Your task to perform on an android device: set an alarm Image 0: 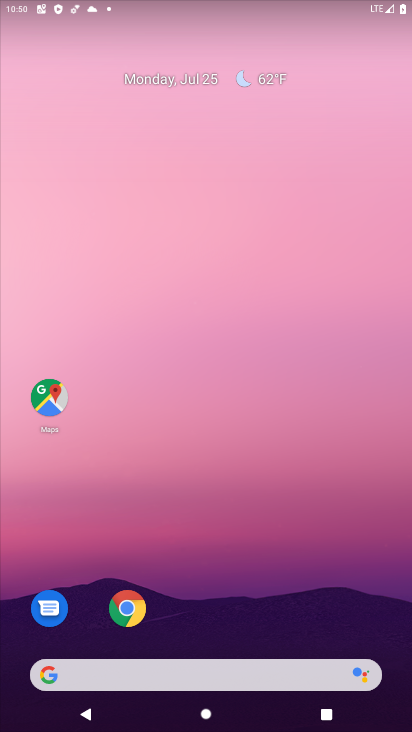
Step 0: drag from (252, 628) to (275, 255)
Your task to perform on an android device: set an alarm Image 1: 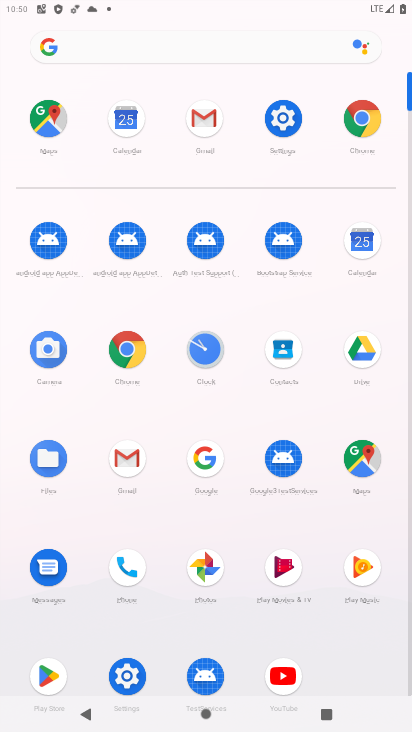
Step 1: click (206, 354)
Your task to perform on an android device: set an alarm Image 2: 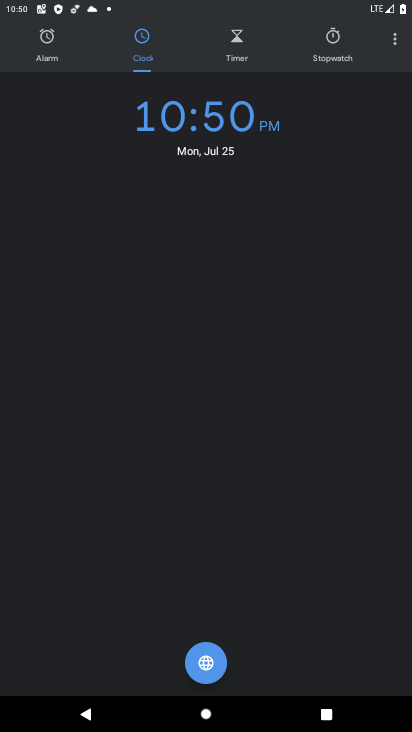
Step 2: click (42, 47)
Your task to perform on an android device: set an alarm Image 3: 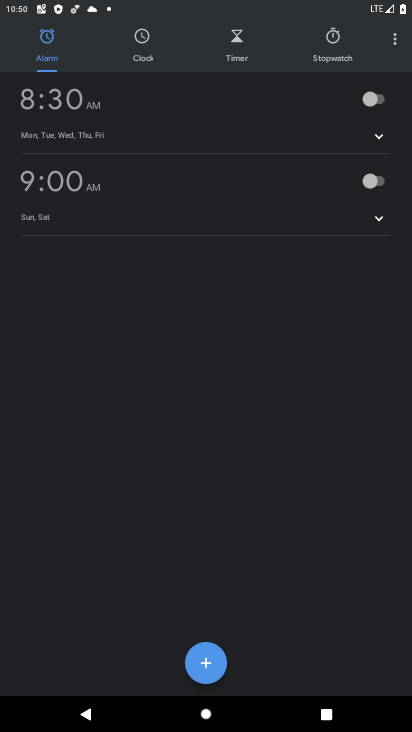
Step 3: click (383, 98)
Your task to perform on an android device: set an alarm Image 4: 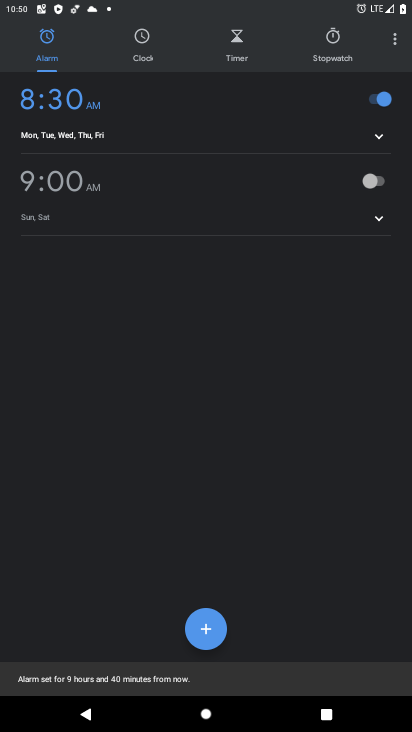
Step 4: click (378, 134)
Your task to perform on an android device: set an alarm Image 5: 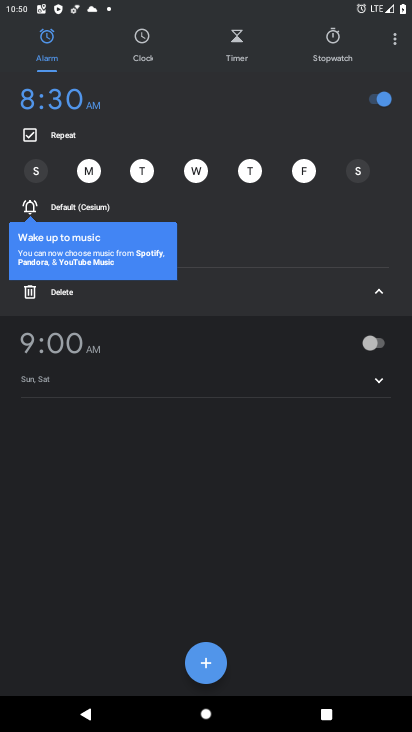
Step 5: click (81, 206)
Your task to perform on an android device: set an alarm Image 6: 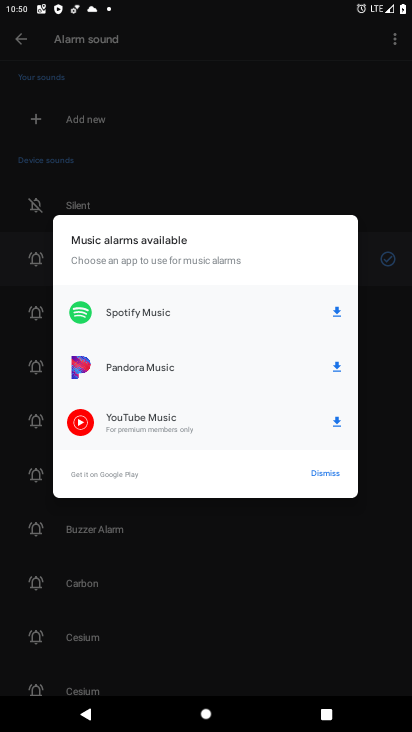
Step 6: click (335, 473)
Your task to perform on an android device: set an alarm Image 7: 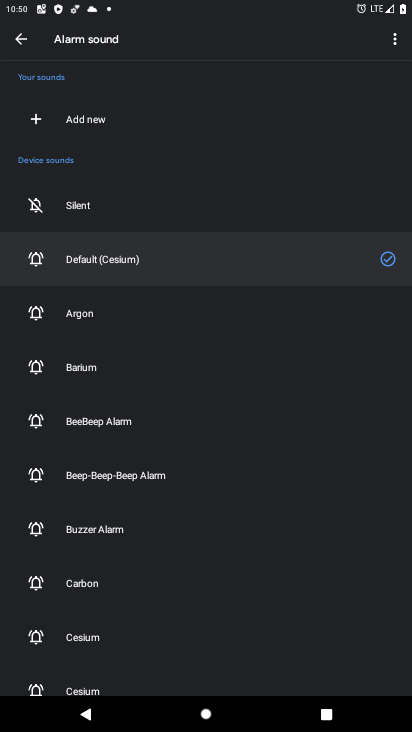
Step 7: click (102, 432)
Your task to perform on an android device: set an alarm Image 8: 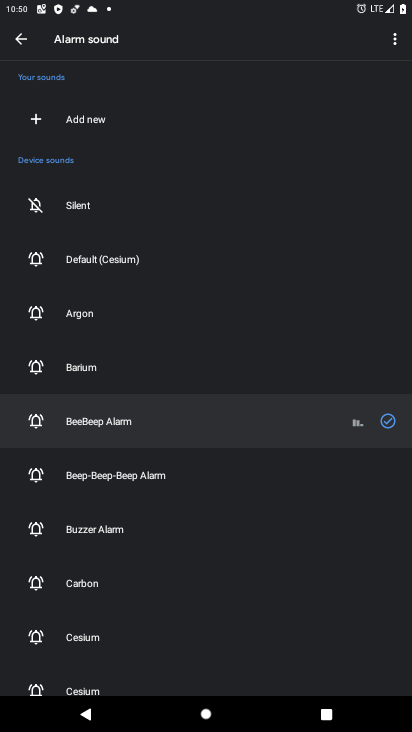
Step 8: task complete